Your task to perform on an android device: Go to accessibility settings Image 0: 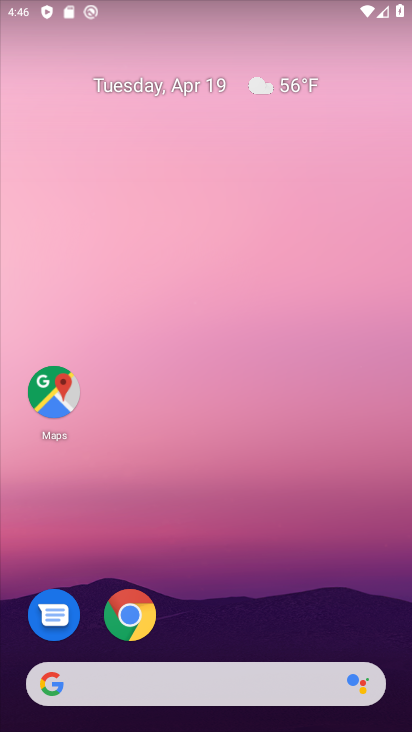
Step 0: drag from (349, 623) to (322, 115)
Your task to perform on an android device: Go to accessibility settings Image 1: 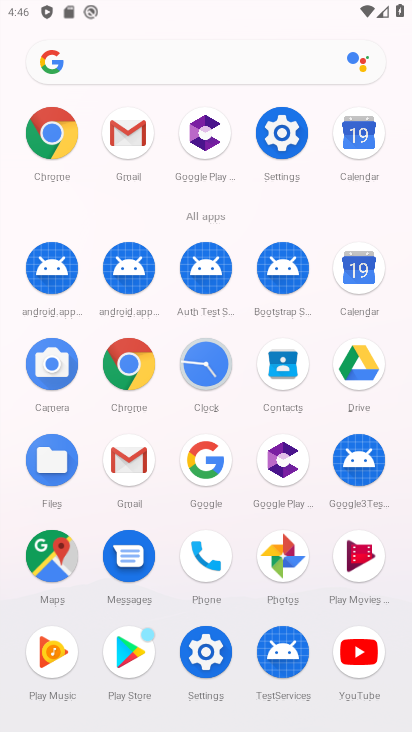
Step 1: click (206, 653)
Your task to perform on an android device: Go to accessibility settings Image 2: 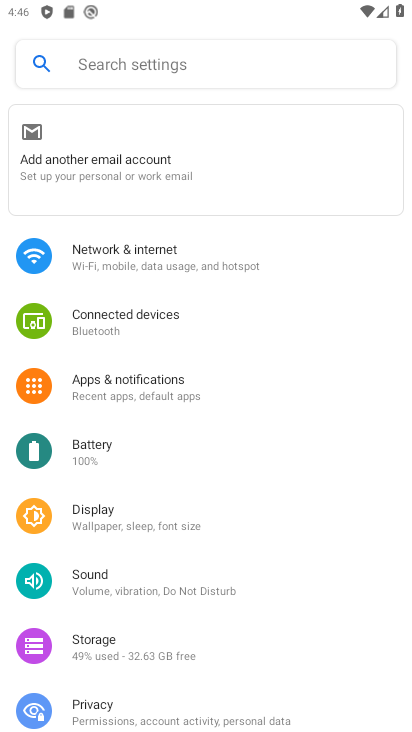
Step 2: drag from (293, 656) to (335, 270)
Your task to perform on an android device: Go to accessibility settings Image 3: 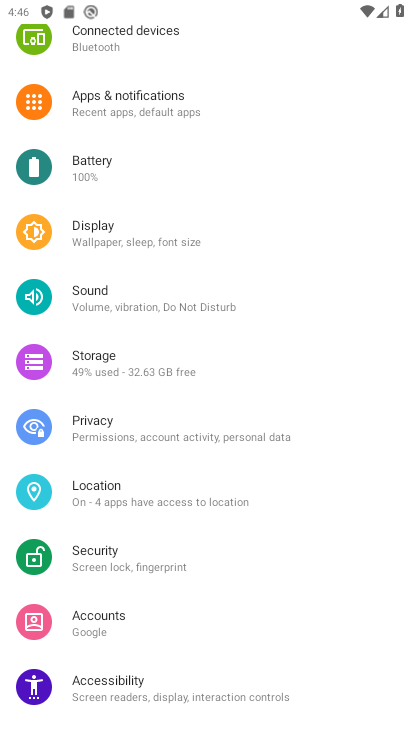
Step 3: drag from (286, 603) to (362, 256)
Your task to perform on an android device: Go to accessibility settings Image 4: 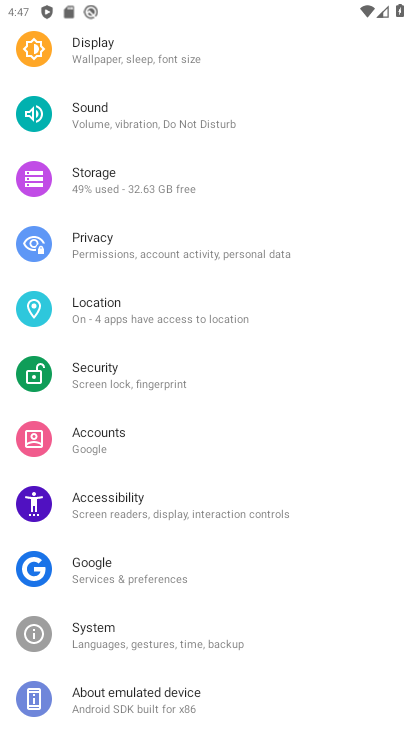
Step 4: click (90, 503)
Your task to perform on an android device: Go to accessibility settings Image 5: 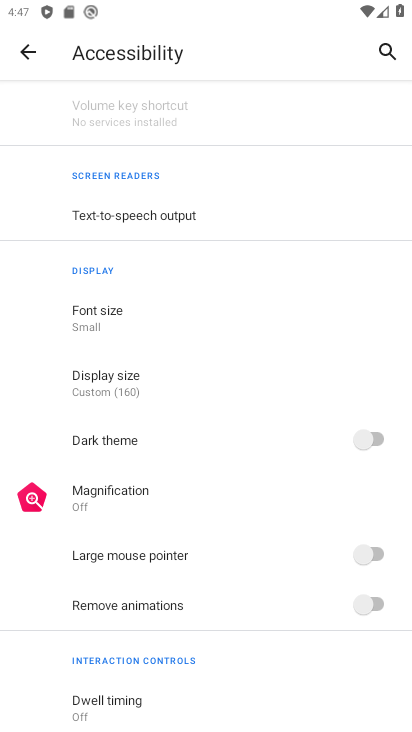
Step 5: task complete